Your task to perform on an android device: Find coffee shops on Maps Image 0: 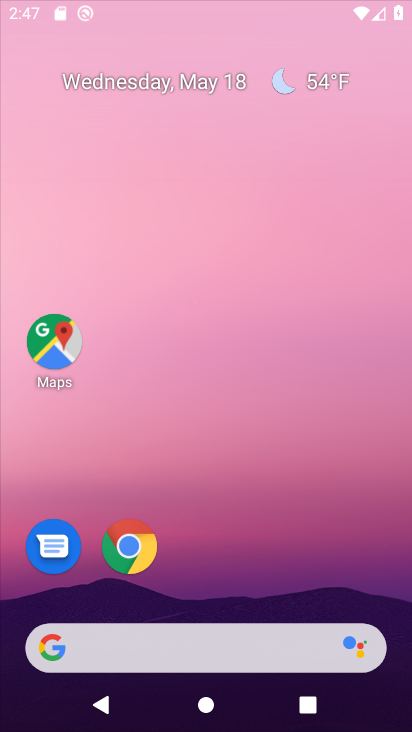
Step 0: drag from (277, 584) to (174, 197)
Your task to perform on an android device: Find coffee shops on Maps Image 1: 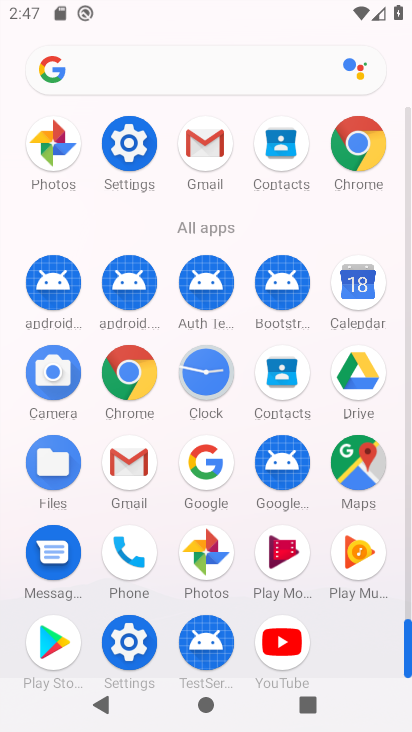
Step 1: click (357, 465)
Your task to perform on an android device: Find coffee shops on Maps Image 2: 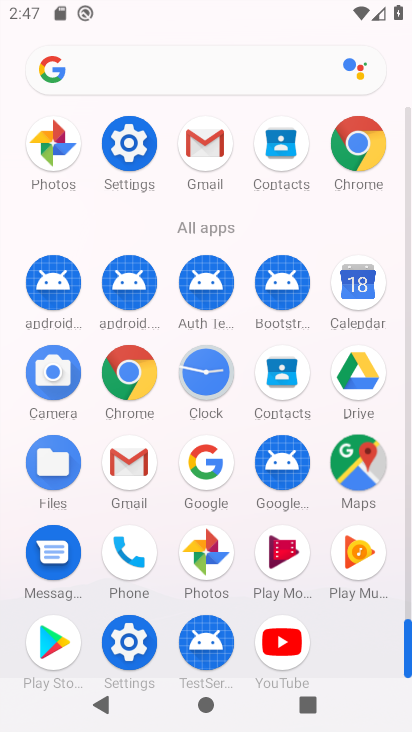
Step 2: click (358, 458)
Your task to perform on an android device: Find coffee shops on Maps Image 3: 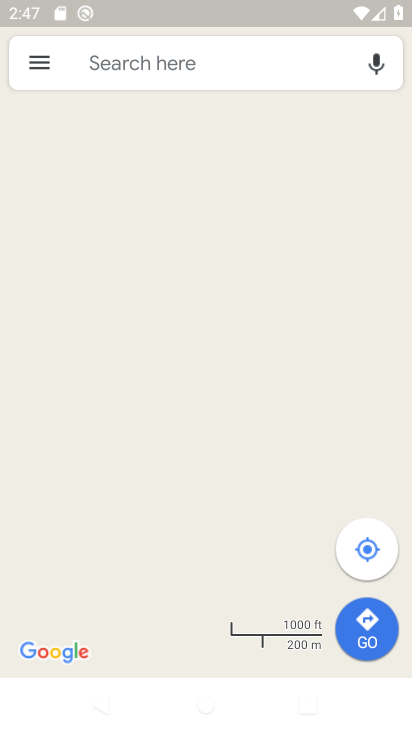
Step 3: click (82, 61)
Your task to perform on an android device: Find coffee shops on Maps Image 4: 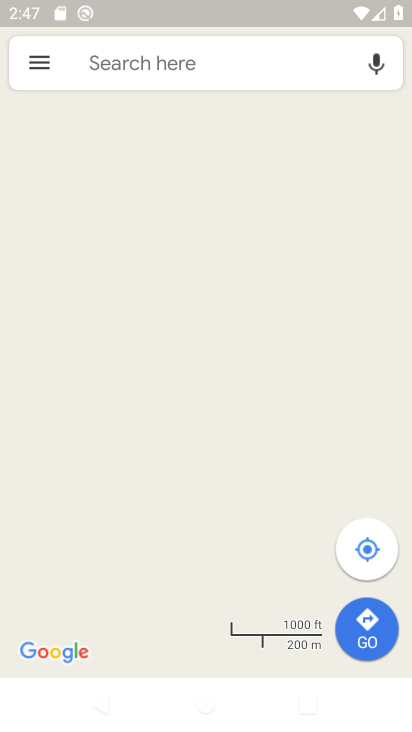
Step 4: click (83, 61)
Your task to perform on an android device: Find coffee shops on Maps Image 5: 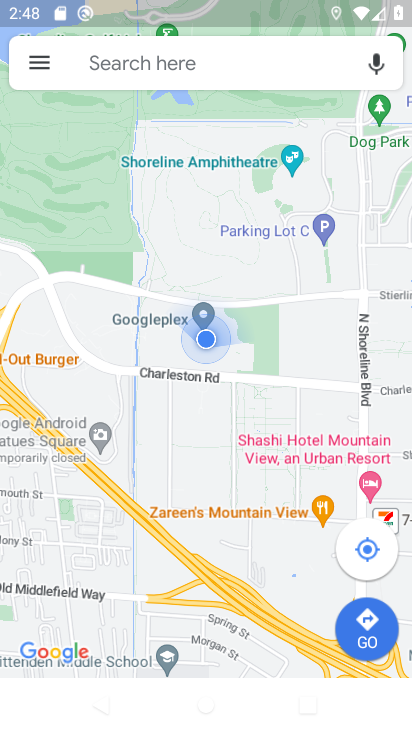
Step 5: click (108, 56)
Your task to perform on an android device: Find coffee shops on Maps Image 6: 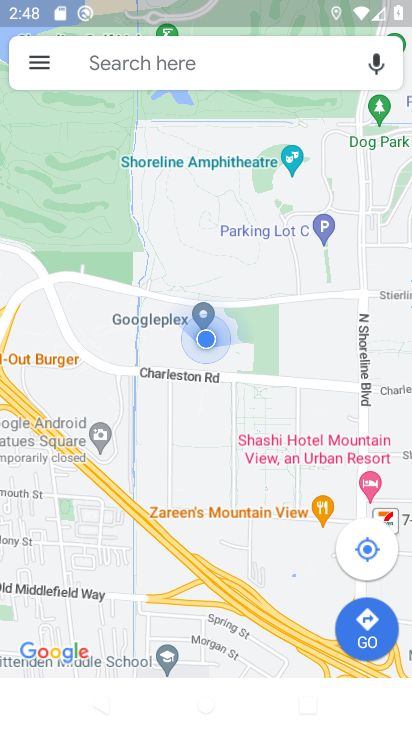
Step 6: click (108, 56)
Your task to perform on an android device: Find coffee shops on Maps Image 7: 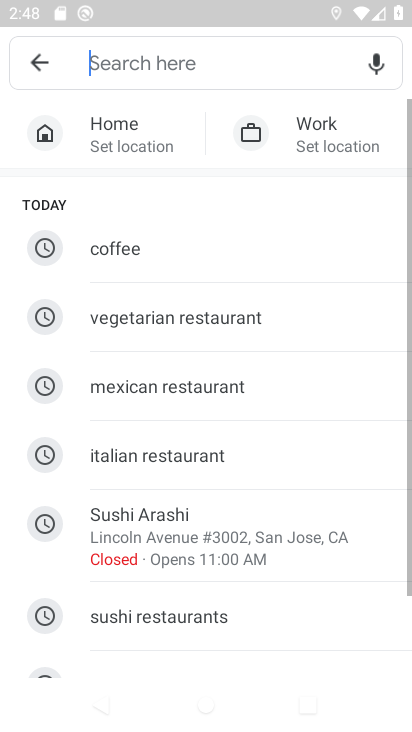
Step 7: click (99, 56)
Your task to perform on an android device: Find coffee shops on Maps Image 8: 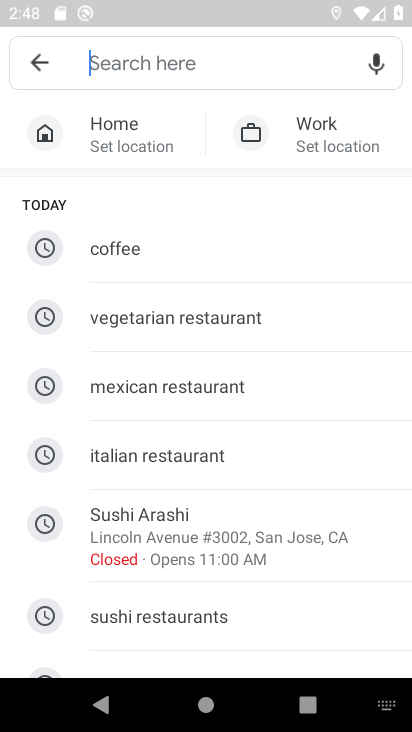
Step 8: click (134, 244)
Your task to perform on an android device: Find coffee shops on Maps Image 9: 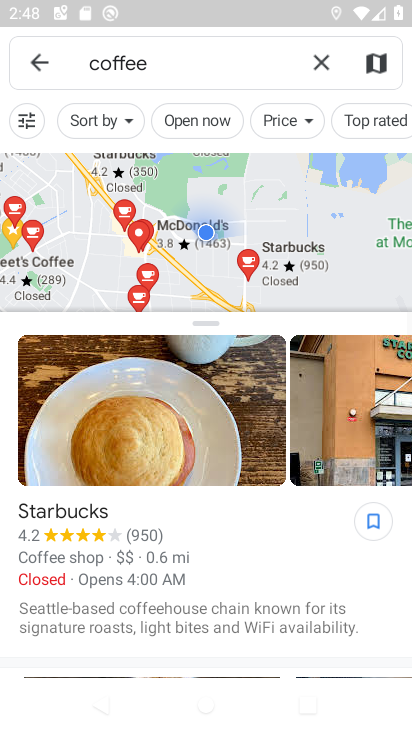
Step 9: task complete